Your task to perform on an android device: Open the web browser Image 0: 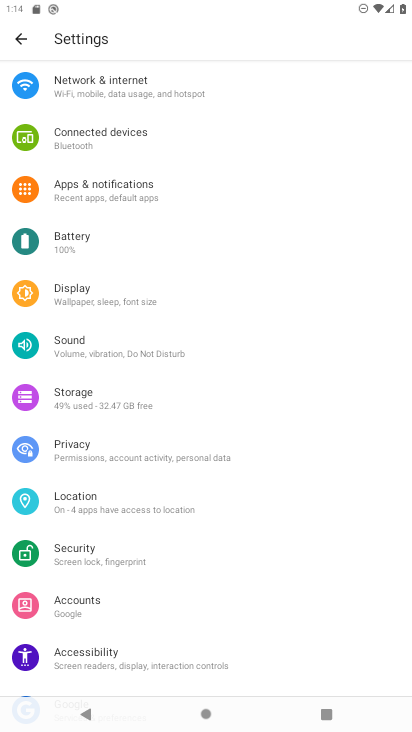
Step 0: press home button
Your task to perform on an android device: Open the web browser Image 1: 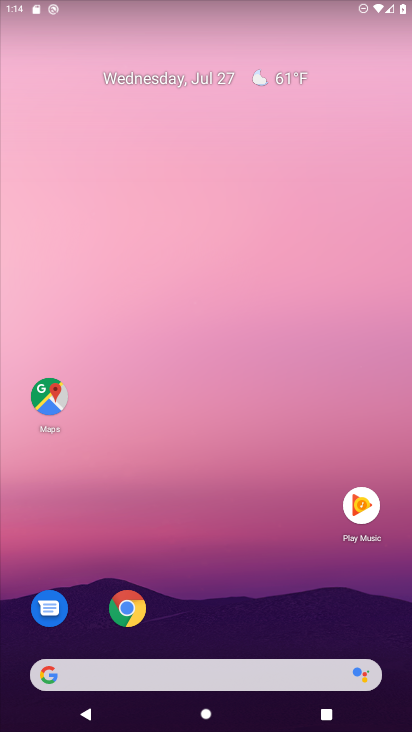
Step 1: drag from (335, 610) to (369, 191)
Your task to perform on an android device: Open the web browser Image 2: 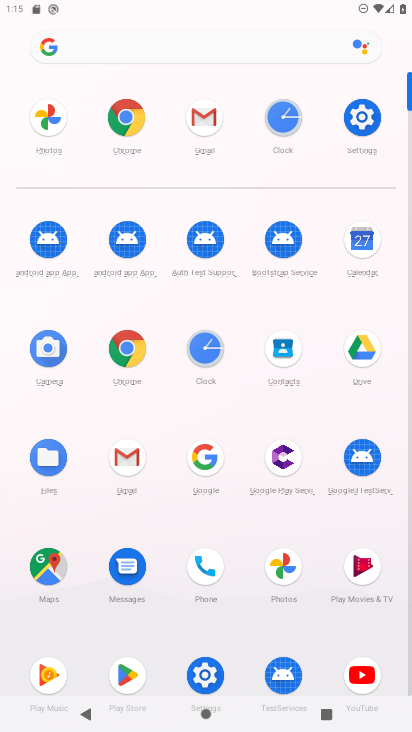
Step 2: click (124, 362)
Your task to perform on an android device: Open the web browser Image 3: 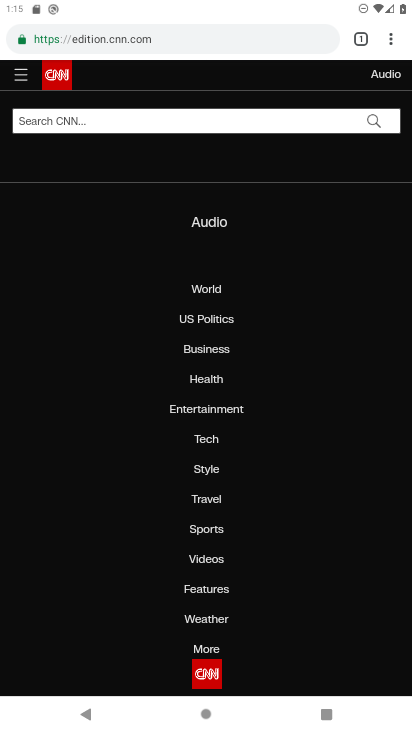
Step 3: task complete